Your task to perform on an android device: Search for sushi restaurants on Maps Image 0: 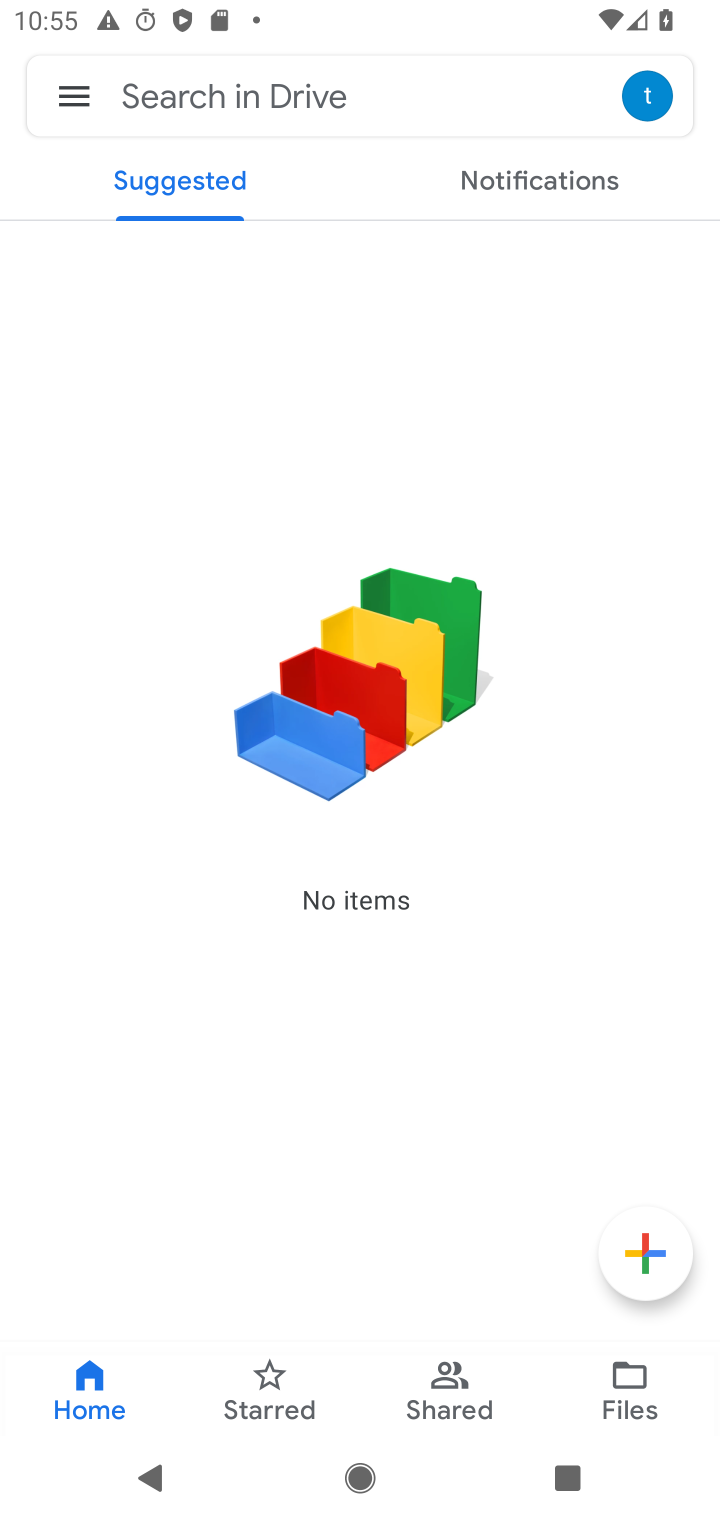
Step 0: press home button
Your task to perform on an android device: Search for sushi restaurants on Maps Image 1: 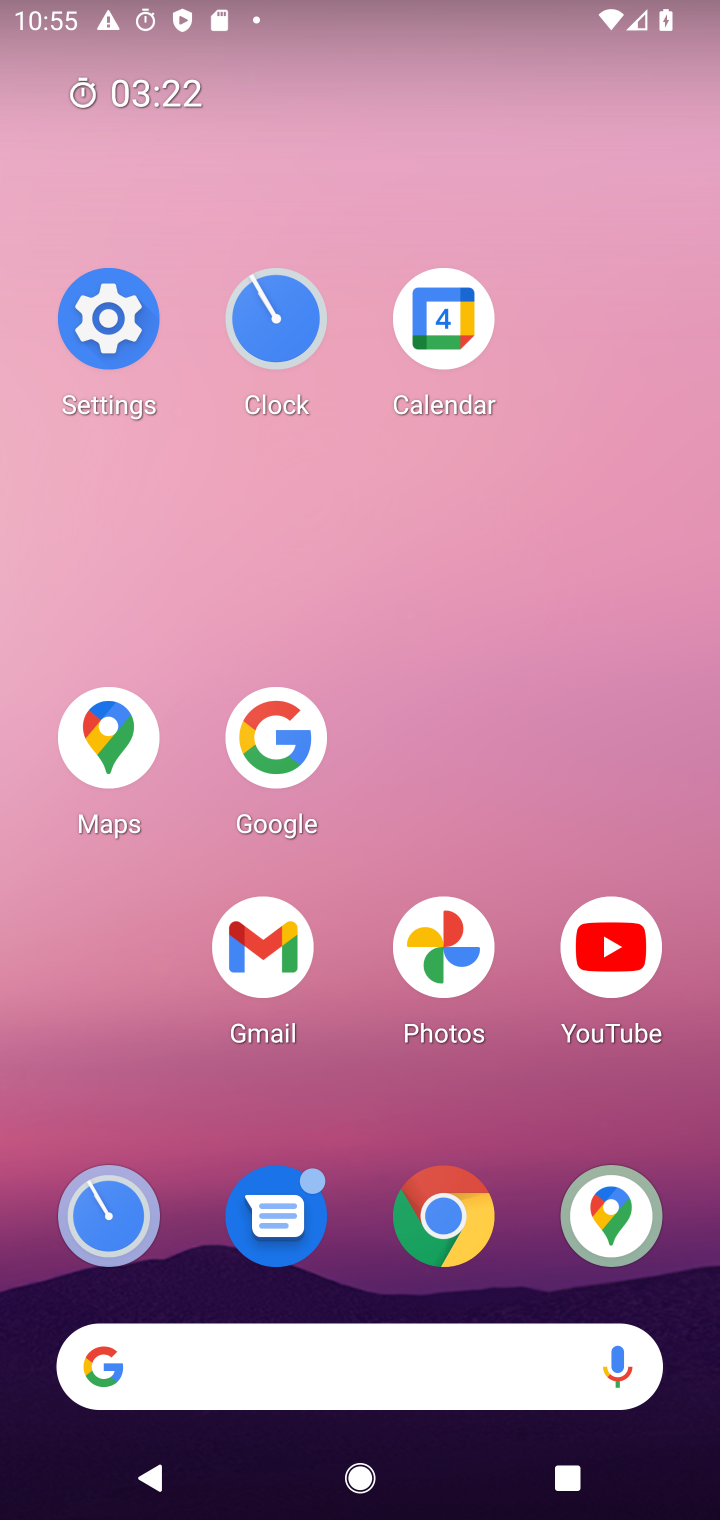
Step 1: click (134, 755)
Your task to perform on an android device: Search for sushi restaurants on Maps Image 2: 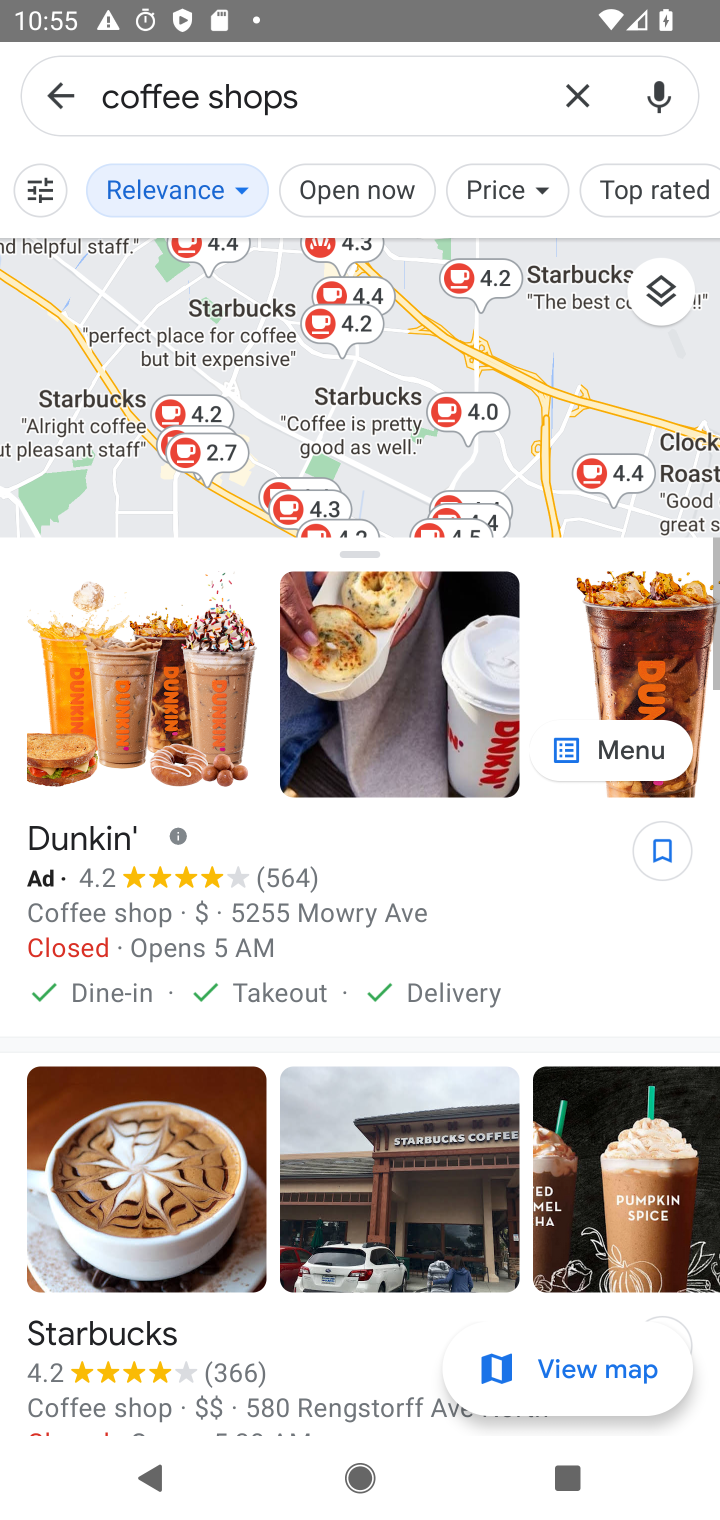
Step 2: click (585, 112)
Your task to perform on an android device: Search for sushi restaurants on Maps Image 3: 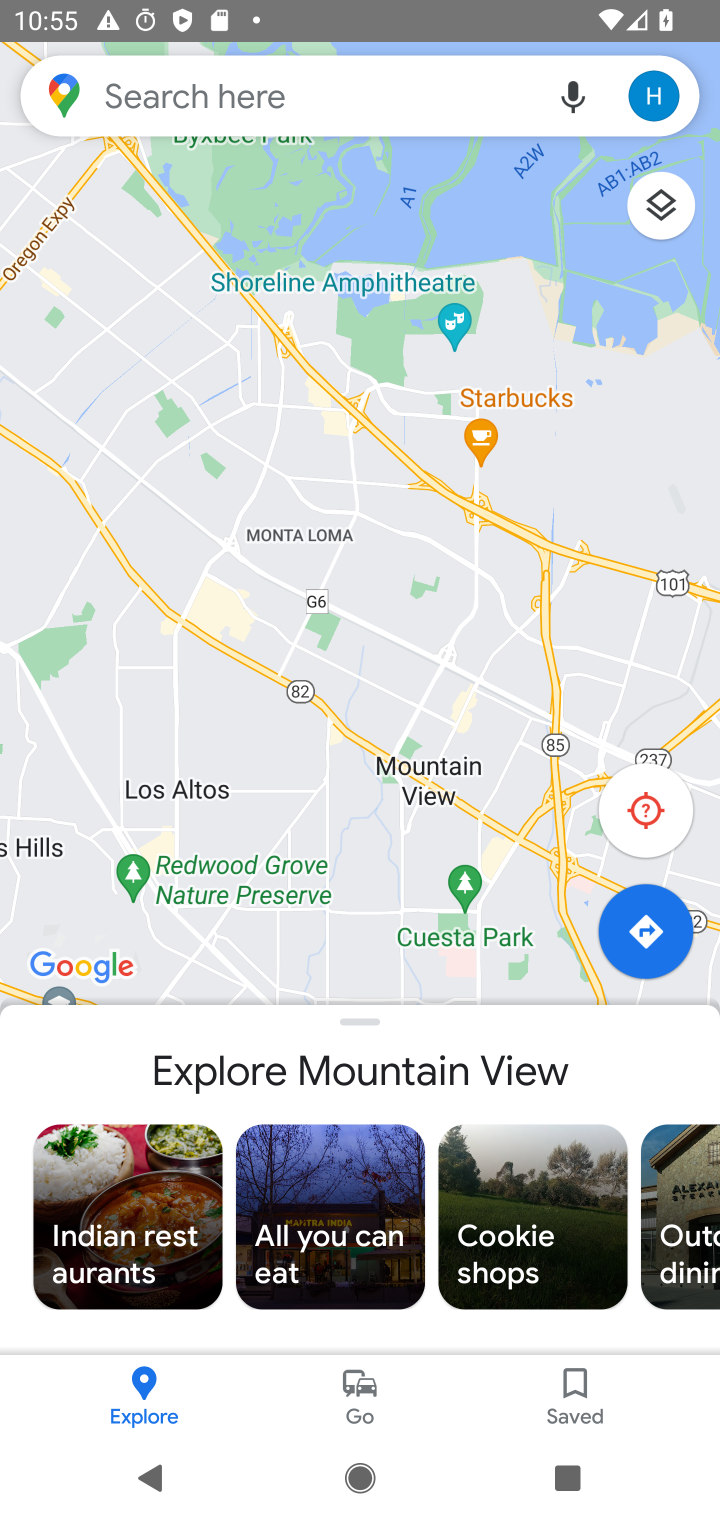
Step 3: click (455, 110)
Your task to perform on an android device: Search for sushi restaurants on Maps Image 4: 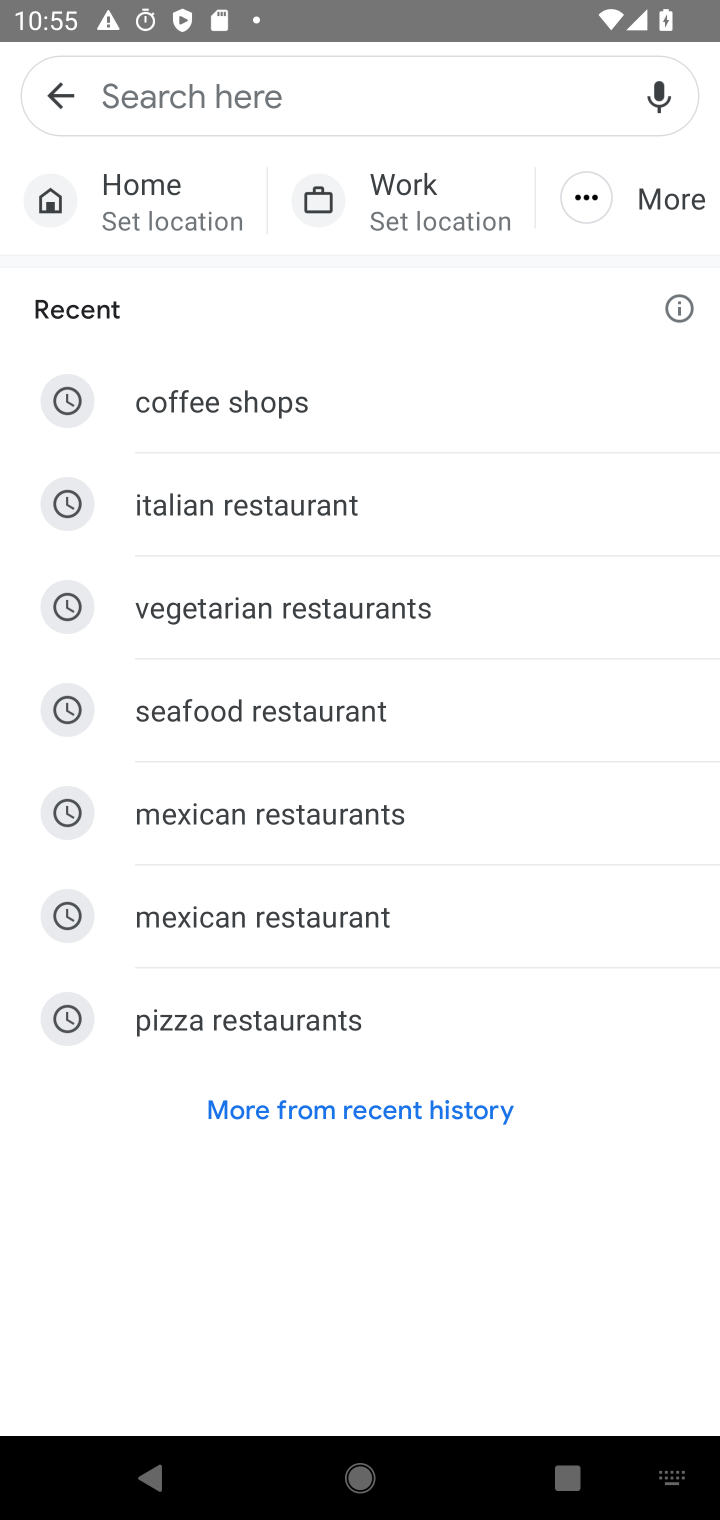
Step 4: type "sushi restaurants"
Your task to perform on an android device: Search for sushi restaurants on Maps Image 5: 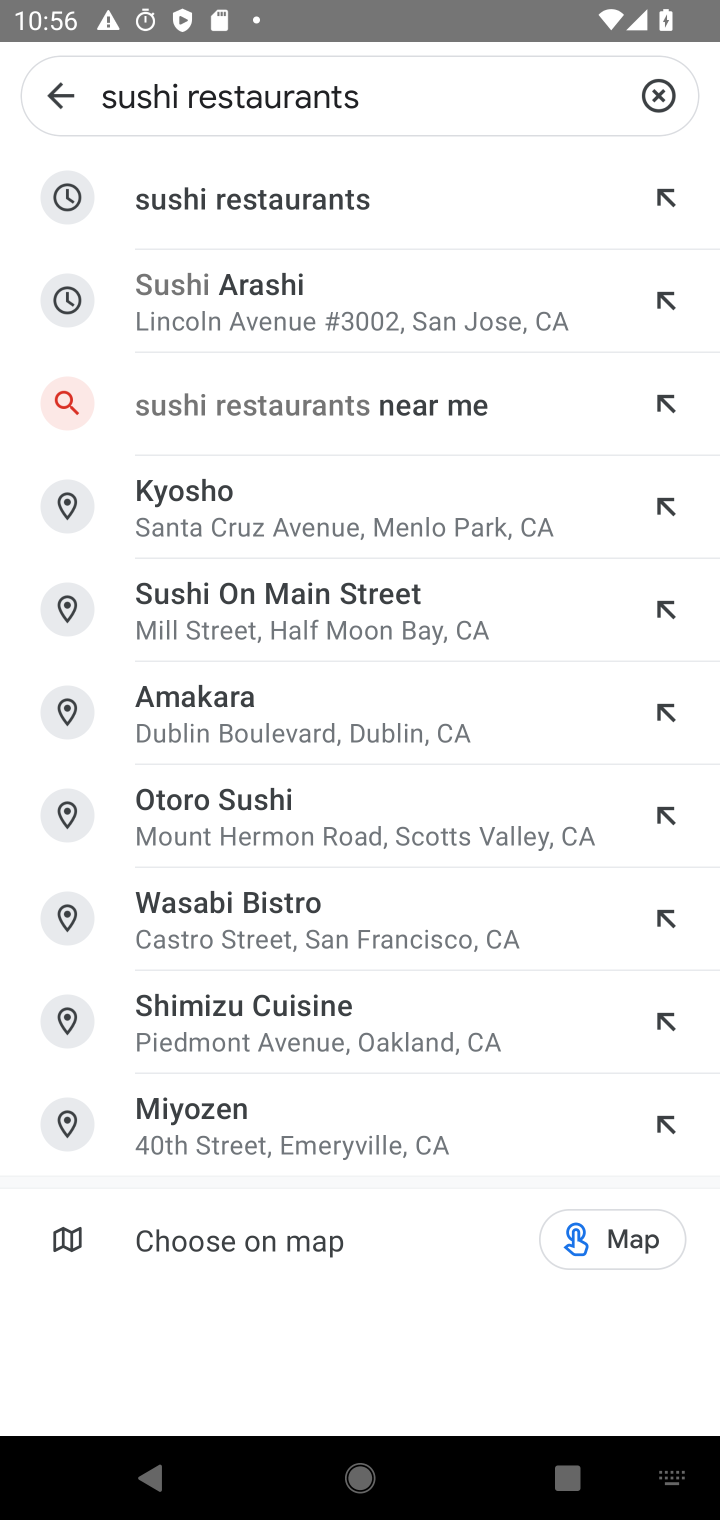
Step 5: click (280, 208)
Your task to perform on an android device: Search for sushi restaurants on Maps Image 6: 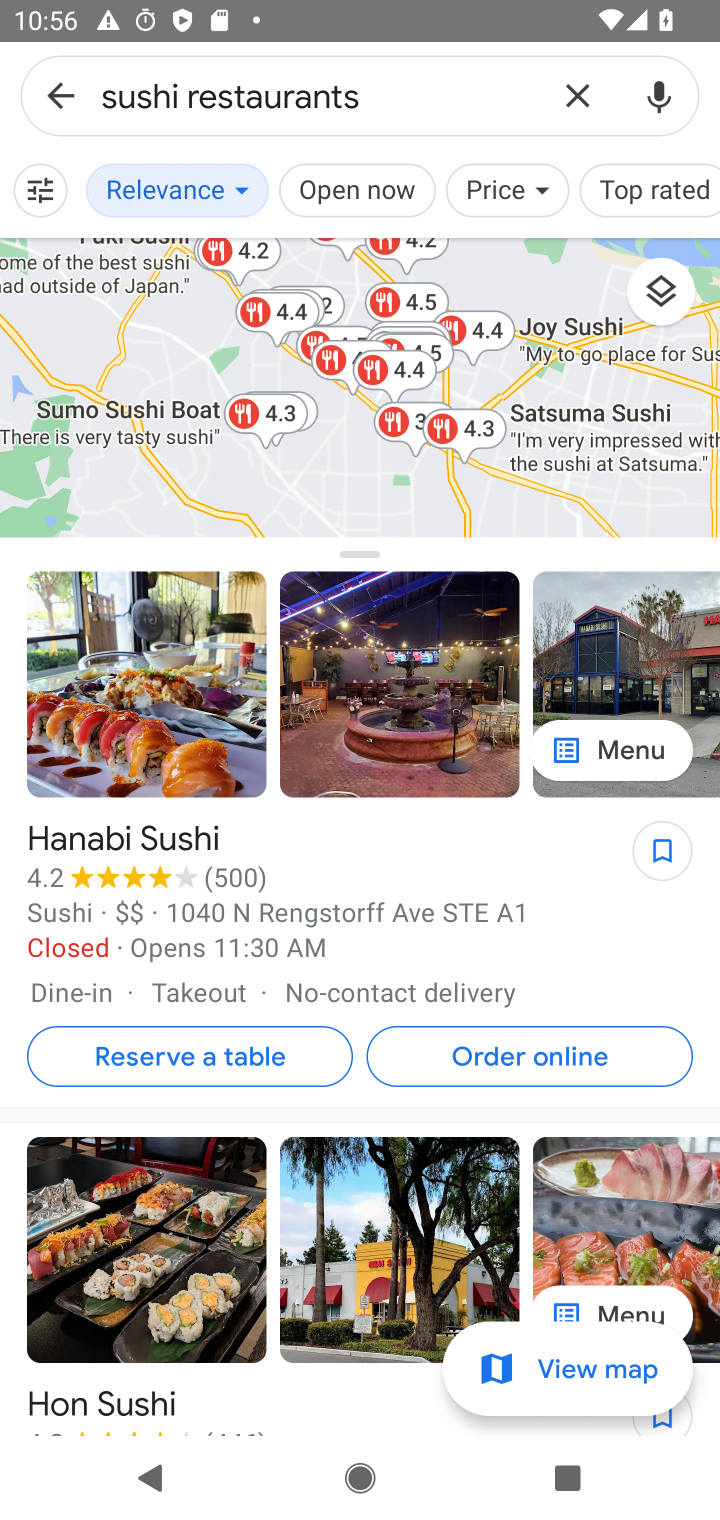
Step 6: task complete